Your task to perform on an android device: turn off location Image 0: 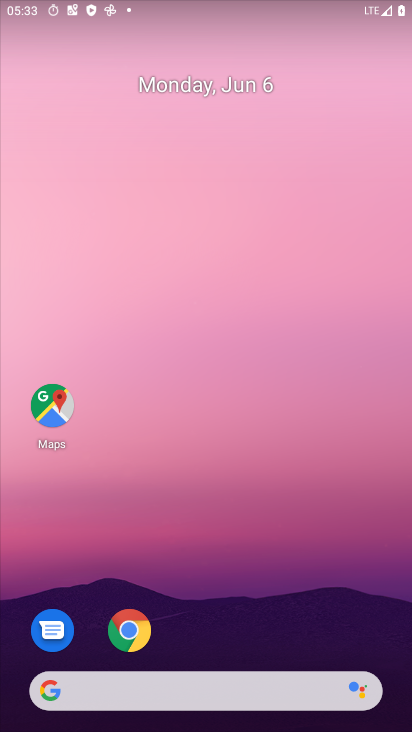
Step 0: drag from (253, 650) to (209, 109)
Your task to perform on an android device: turn off location Image 1: 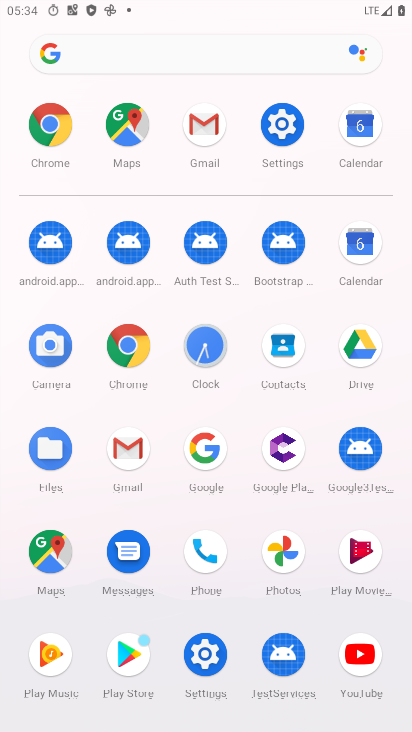
Step 1: click (292, 125)
Your task to perform on an android device: turn off location Image 2: 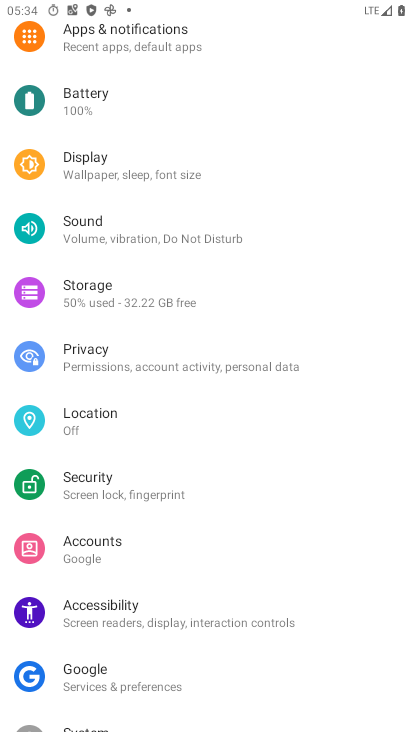
Step 2: click (103, 423)
Your task to perform on an android device: turn off location Image 3: 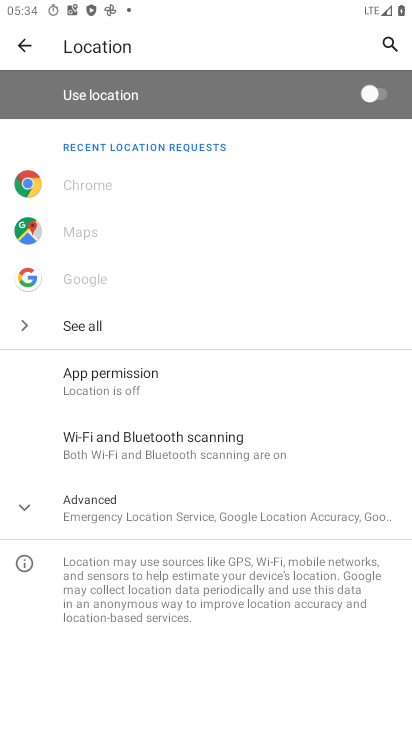
Step 3: task complete